Your task to perform on an android device: Turn on the flashlight Image 0: 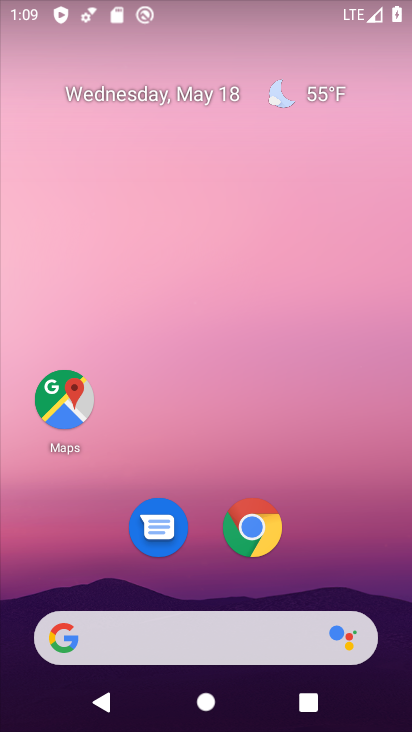
Step 0: drag from (264, 8) to (179, 594)
Your task to perform on an android device: Turn on the flashlight Image 1: 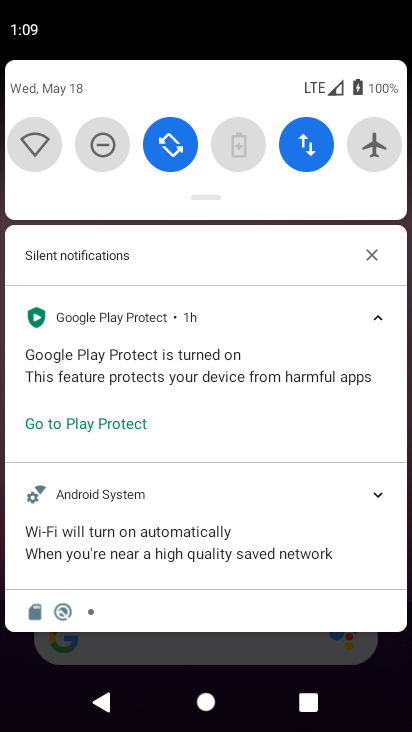
Step 1: task complete